Your task to perform on an android device: Open settings on Google Maps Image 0: 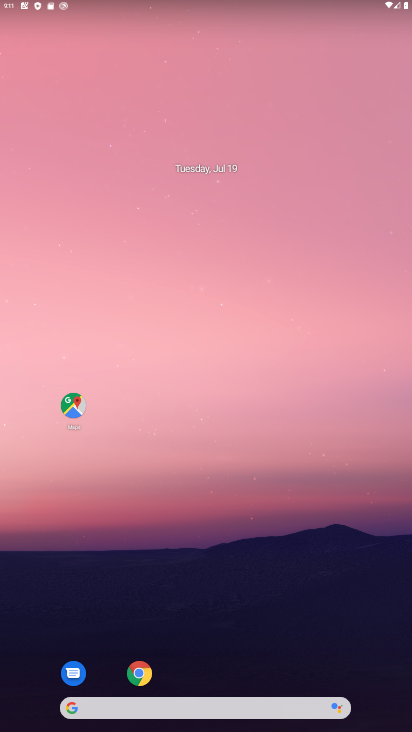
Step 0: click (78, 392)
Your task to perform on an android device: Open settings on Google Maps Image 1: 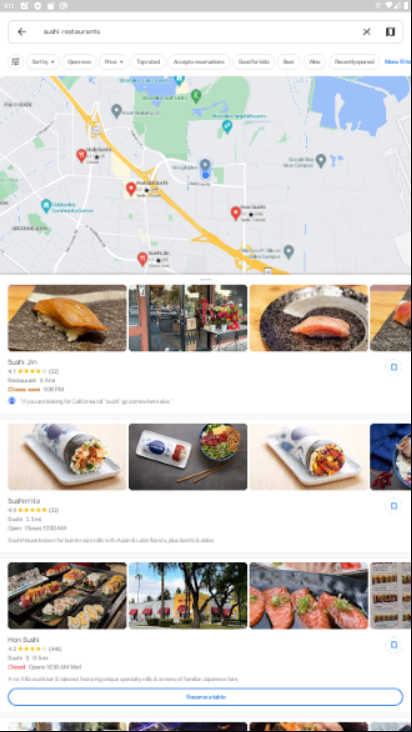
Step 1: click (19, 31)
Your task to perform on an android device: Open settings on Google Maps Image 2: 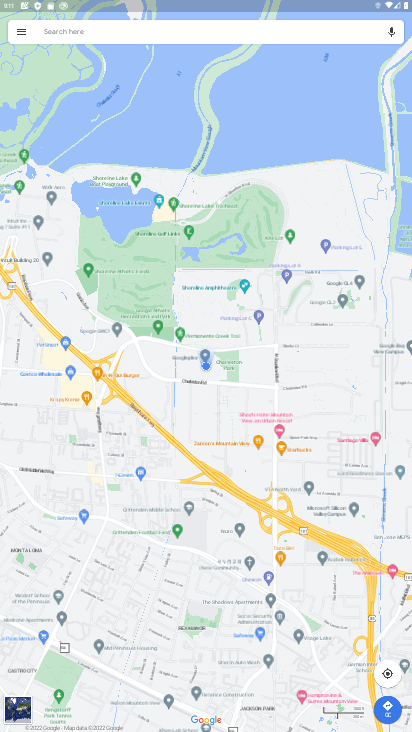
Step 2: click (18, 32)
Your task to perform on an android device: Open settings on Google Maps Image 3: 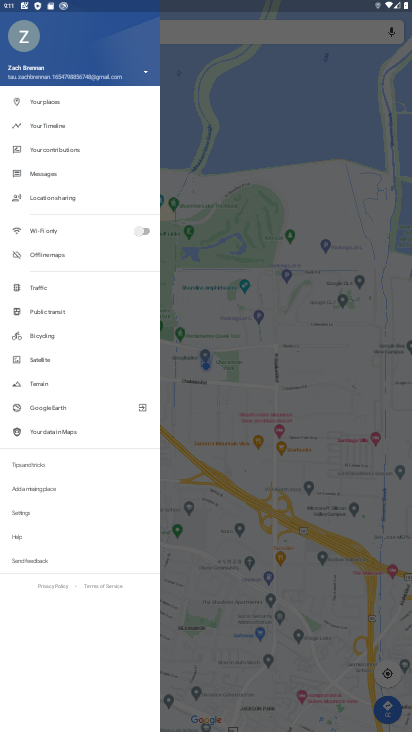
Step 3: click (38, 515)
Your task to perform on an android device: Open settings on Google Maps Image 4: 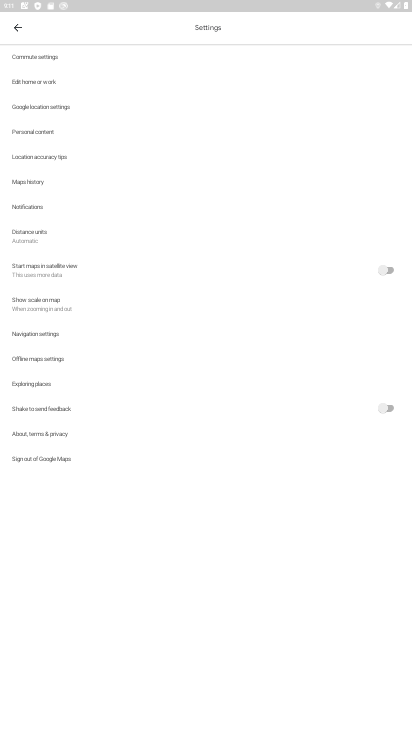
Step 4: task complete